Your task to perform on an android device: toggle wifi Image 0: 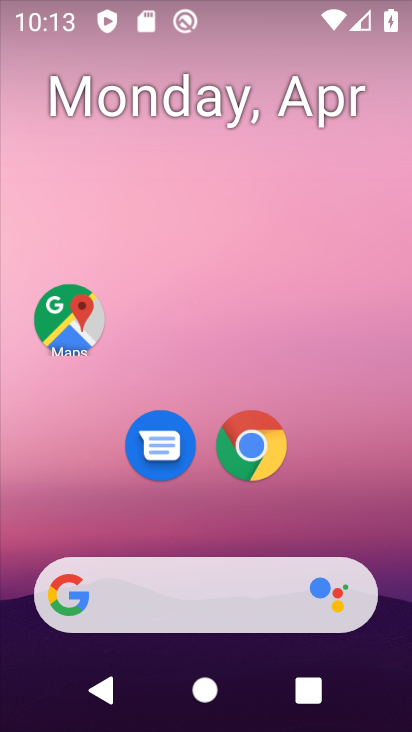
Step 0: drag from (199, 470) to (154, 102)
Your task to perform on an android device: toggle wifi Image 1: 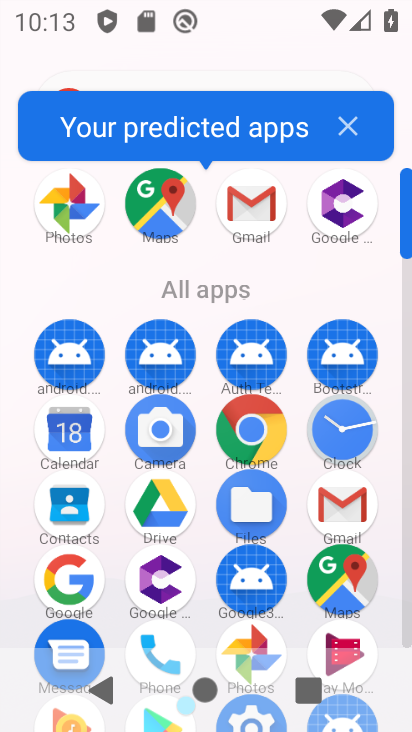
Step 1: drag from (192, 594) to (185, 223)
Your task to perform on an android device: toggle wifi Image 2: 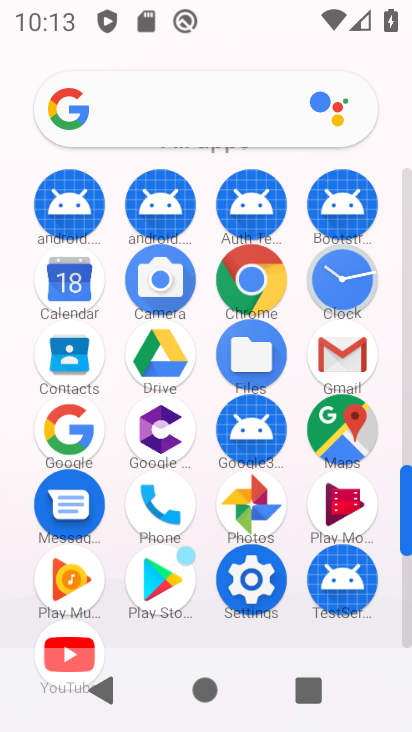
Step 2: click (255, 581)
Your task to perform on an android device: toggle wifi Image 3: 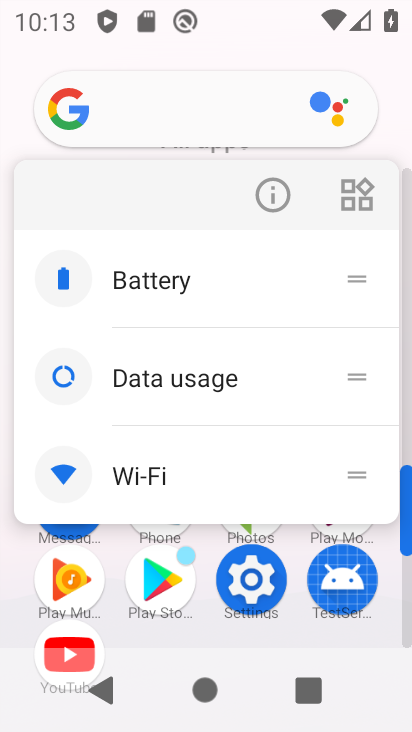
Step 3: click (255, 581)
Your task to perform on an android device: toggle wifi Image 4: 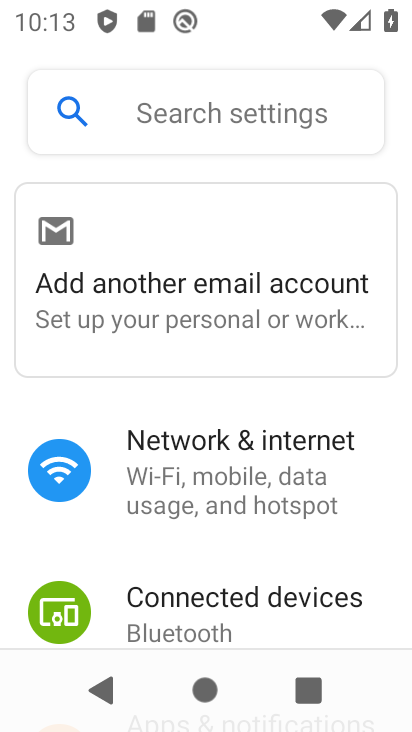
Step 4: click (235, 453)
Your task to perform on an android device: toggle wifi Image 5: 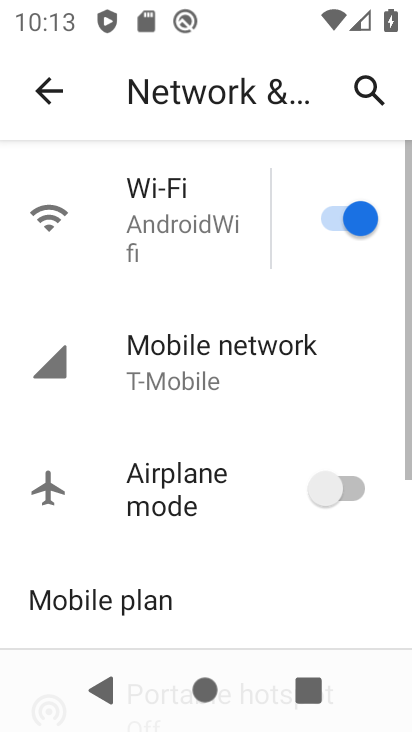
Step 5: click (338, 220)
Your task to perform on an android device: toggle wifi Image 6: 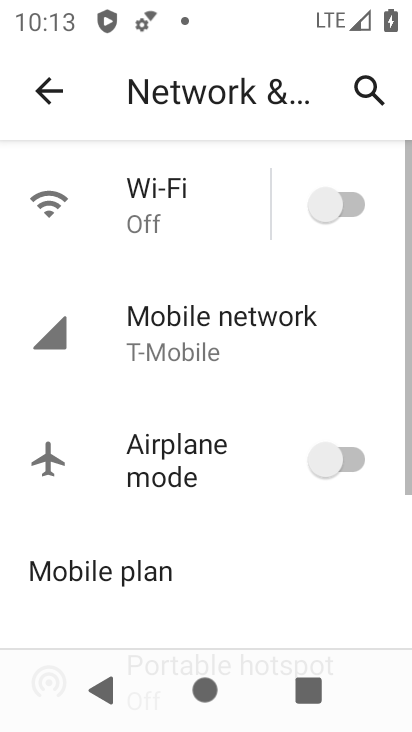
Step 6: task complete